Your task to perform on an android device: turn off airplane mode Image 0: 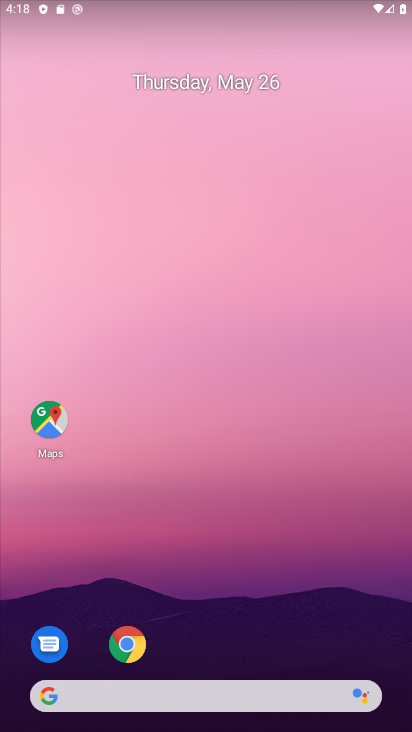
Step 0: drag from (250, 578) to (197, 64)
Your task to perform on an android device: turn off airplane mode Image 1: 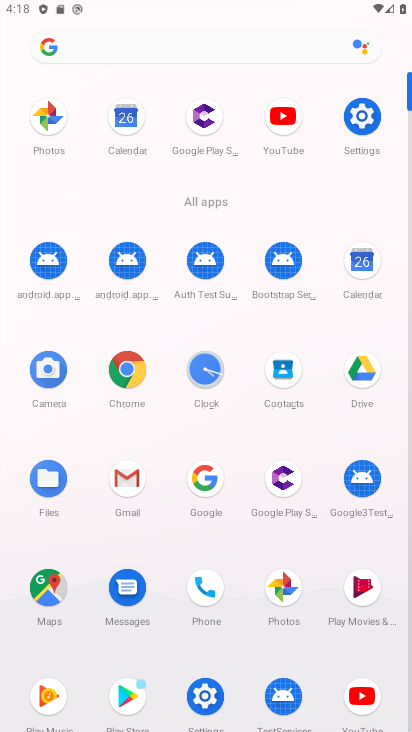
Step 1: drag from (6, 580) to (5, 263)
Your task to perform on an android device: turn off airplane mode Image 2: 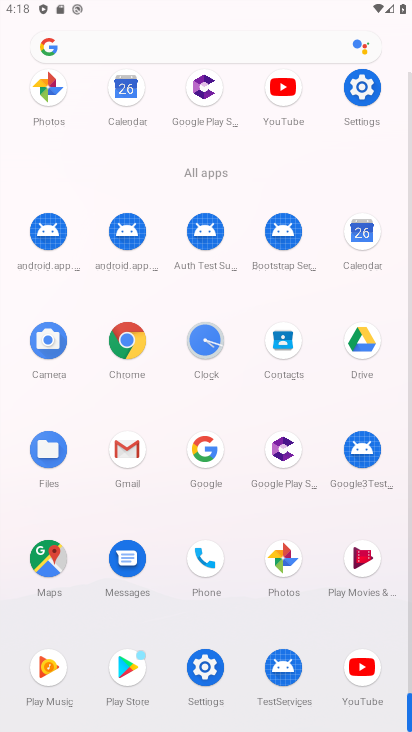
Step 2: click (204, 667)
Your task to perform on an android device: turn off airplane mode Image 3: 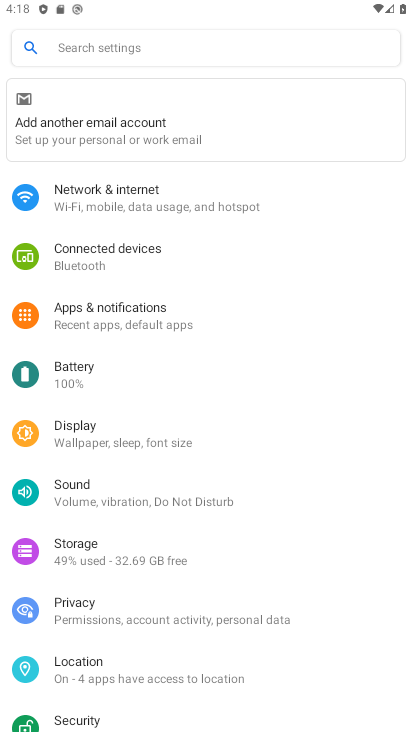
Step 3: click (157, 192)
Your task to perform on an android device: turn off airplane mode Image 4: 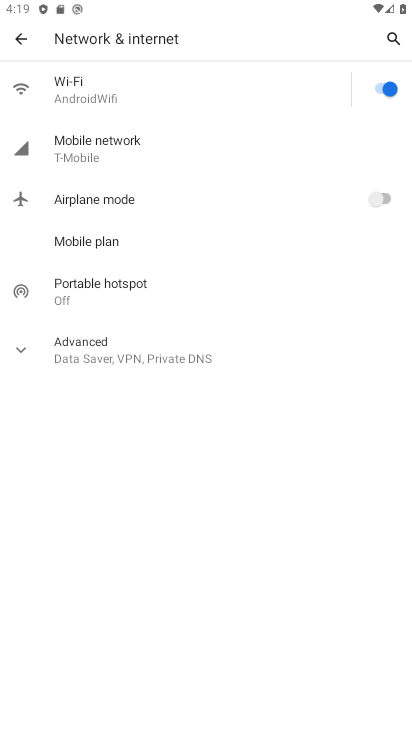
Step 4: click (21, 349)
Your task to perform on an android device: turn off airplane mode Image 5: 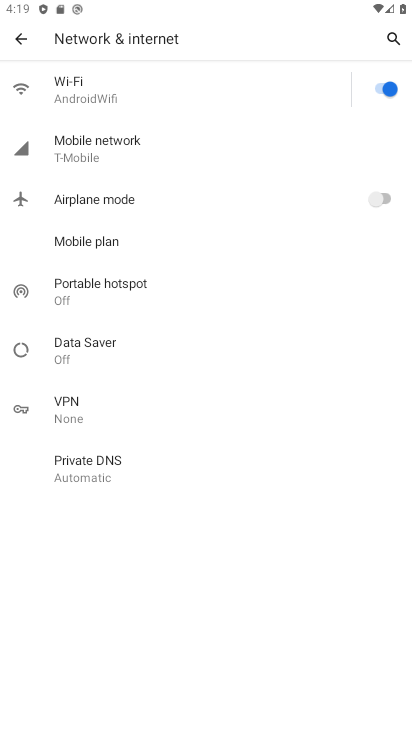
Step 5: task complete